Your task to perform on an android device: check the backup settings in the google photos Image 0: 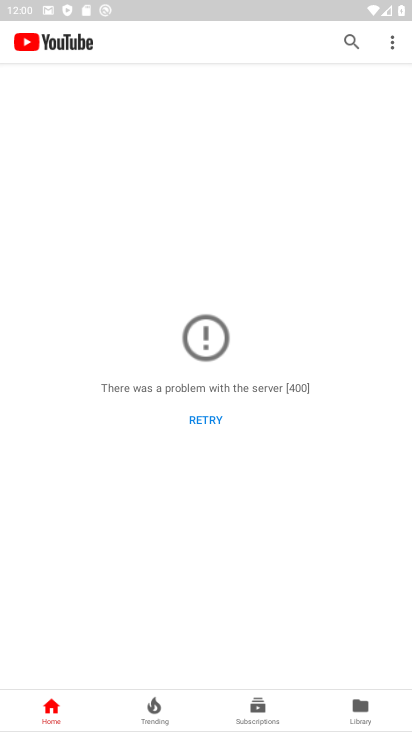
Step 0: press home button
Your task to perform on an android device: check the backup settings in the google photos Image 1: 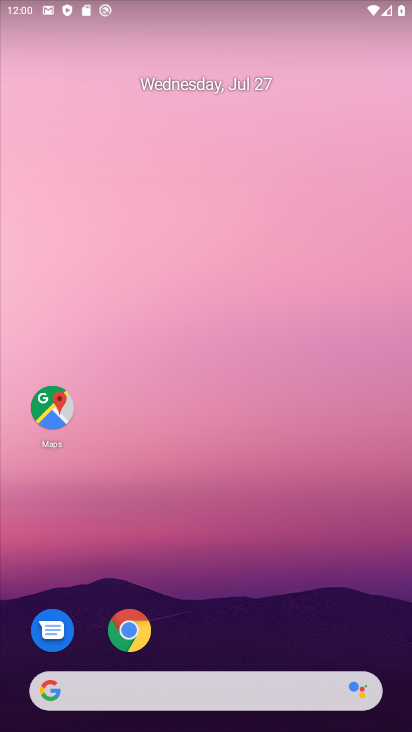
Step 1: drag from (208, 650) to (264, 18)
Your task to perform on an android device: check the backup settings in the google photos Image 2: 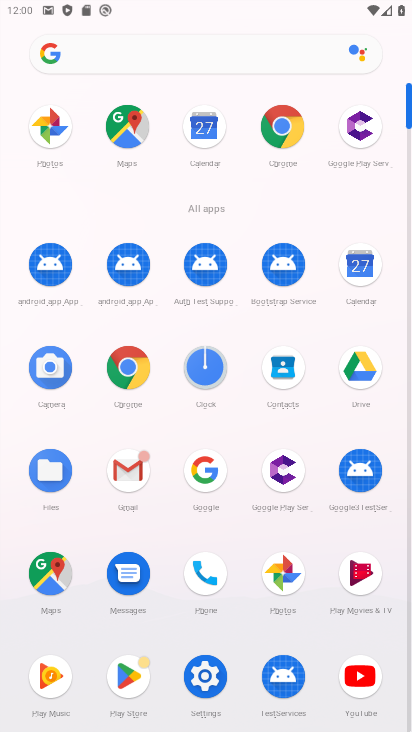
Step 2: click (285, 595)
Your task to perform on an android device: check the backup settings in the google photos Image 3: 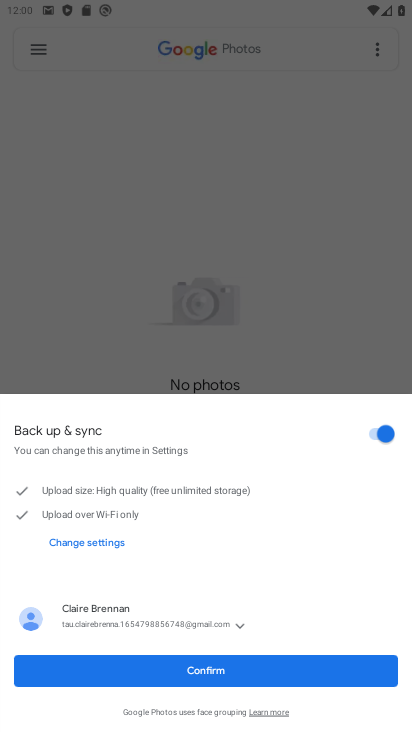
Step 3: click (241, 677)
Your task to perform on an android device: check the backup settings in the google photos Image 4: 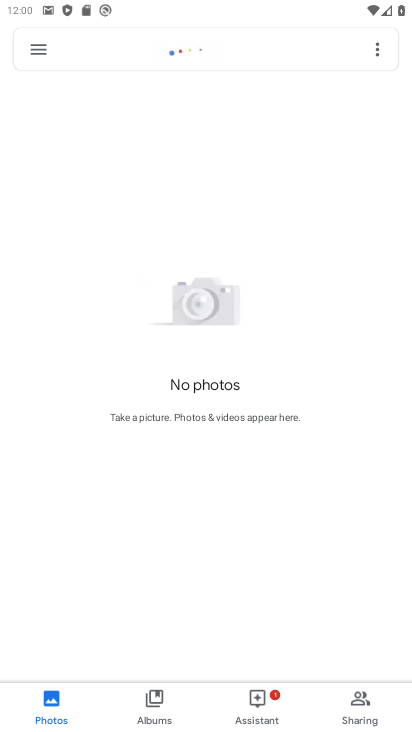
Step 4: click (31, 49)
Your task to perform on an android device: check the backup settings in the google photos Image 5: 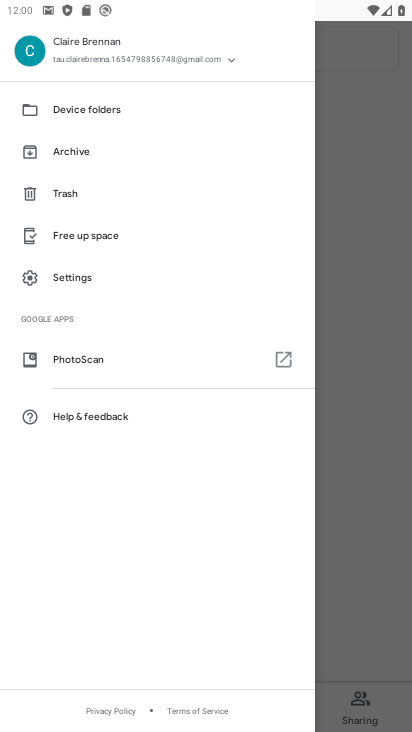
Step 5: click (91, 283)
Your task to perform on an android device: check the backup settings in the google photos Image 6: 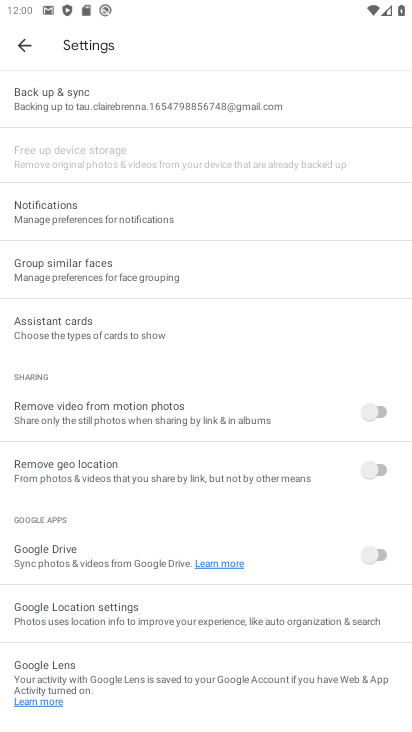
Step 6: click (100, 114)
Your task to perform on an android device: check the backup settings in the google photos Image 7: 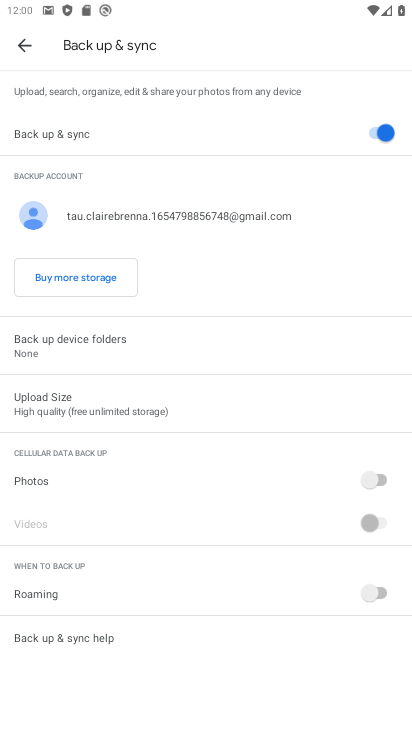
Step 7: task complete